Your task to perform on an android device: Open Chrome and go to the settings page Image 0: 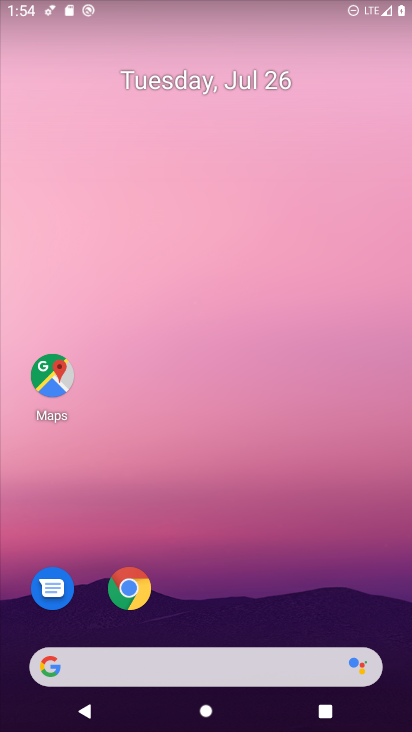
Step 0: click (145, 592)
Your task to perform on an android device: Open Chrome and go to the settings page Image 1: 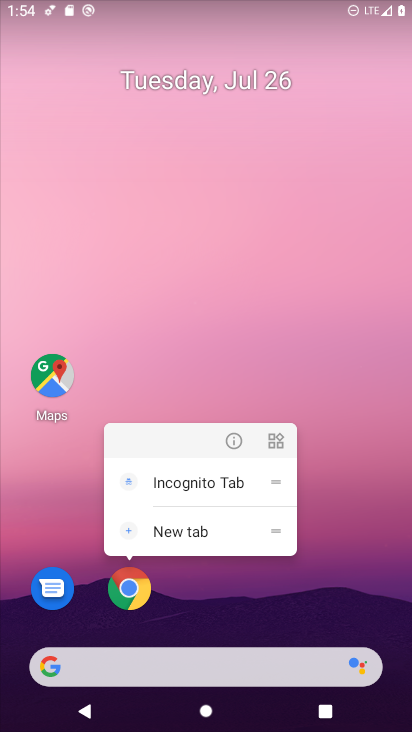
Step 1: click (124, 590)
Your task to perform on an android device: Open Chrome and go to the settings page Image 2: 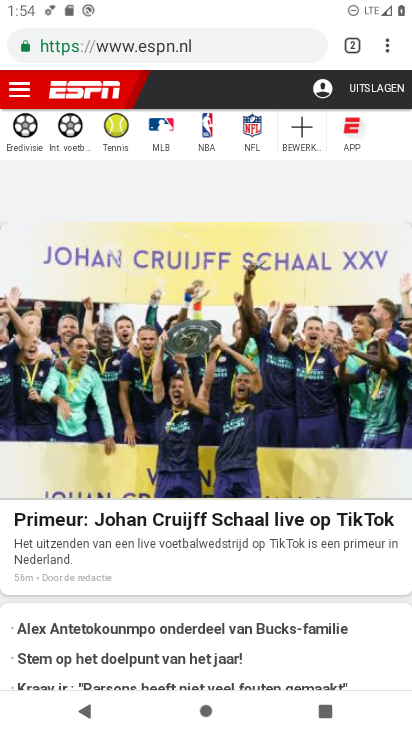
Step 2: task complete